Your task to perform on an android device: Search for sushi restaurants on Maps Image 0: 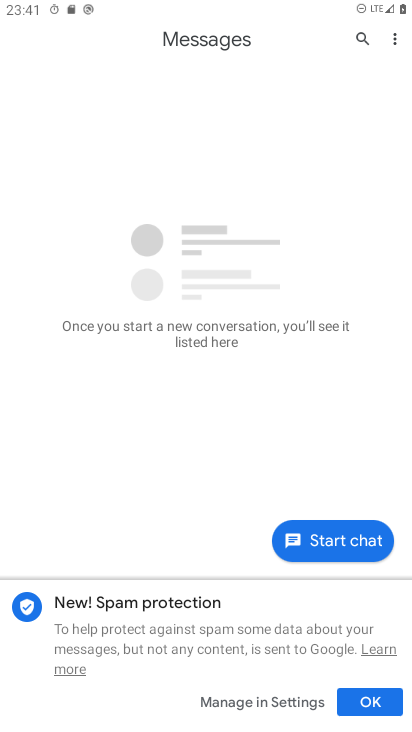
Step 0: press home button
Your task to perform on an android device: Search for sushi restaurants on Maps Image 1: 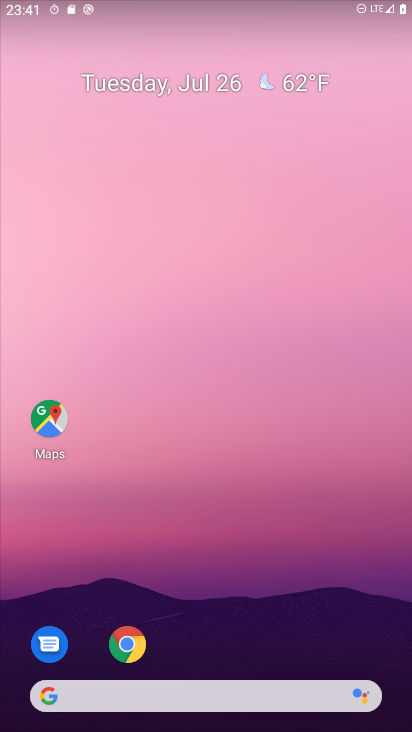
Step 1: click (51, 415)
Your task to perform on an android device: Search for sushi restaurants on Maps Image 2: 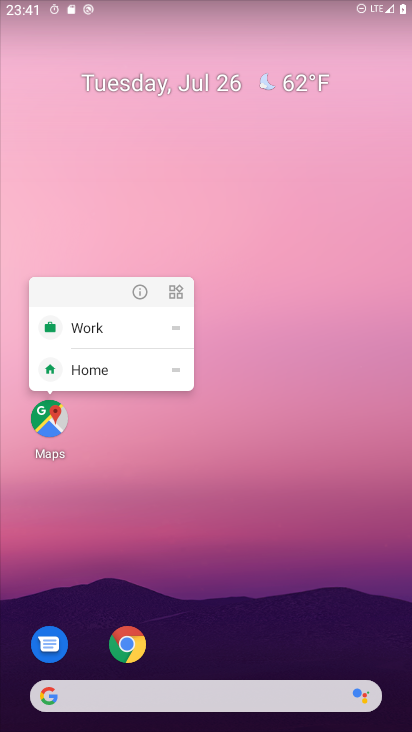
Step 2: click (51, 415)
Your task to perform on an android device: Search for sushi restaurants on Maps Image 3: 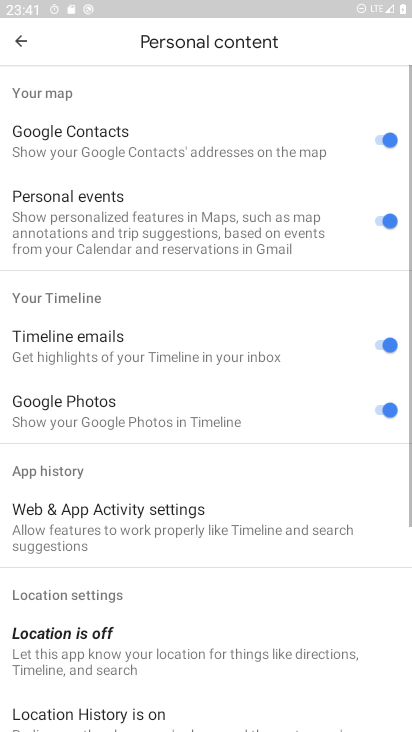
Step 3: click (23, 47)
Your task to perform on an android device: Search for sushi restaurants on Maps Image 4: 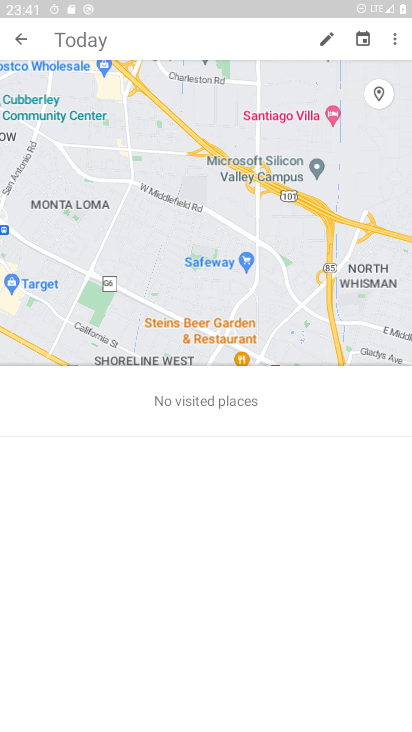
Step 4: click (19, 25)
Your task to perform on an android device: Search for sushi restaurants on Maps Image 5: 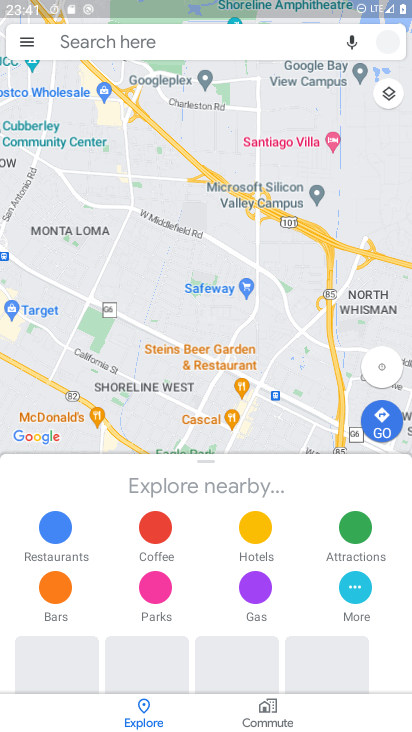
Step 5: click (83, 45)
Your task to perform on an android device: Search for sushi restaurants on Maps Image 6: 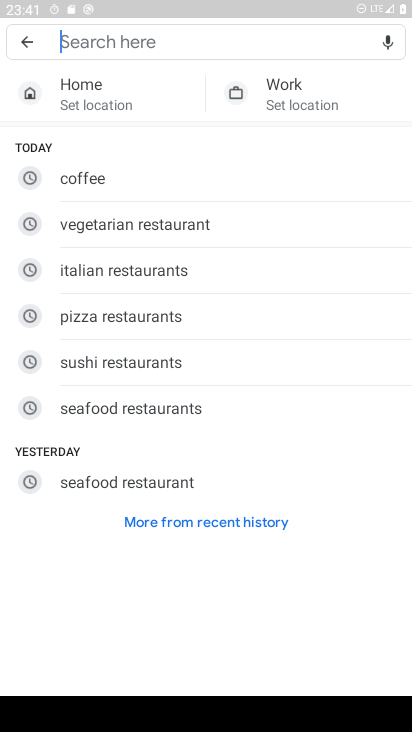
Step 6: type " sushi restaurants "
Your task to perform on an android device: Search for sushi restaurants on Maps Image 7: 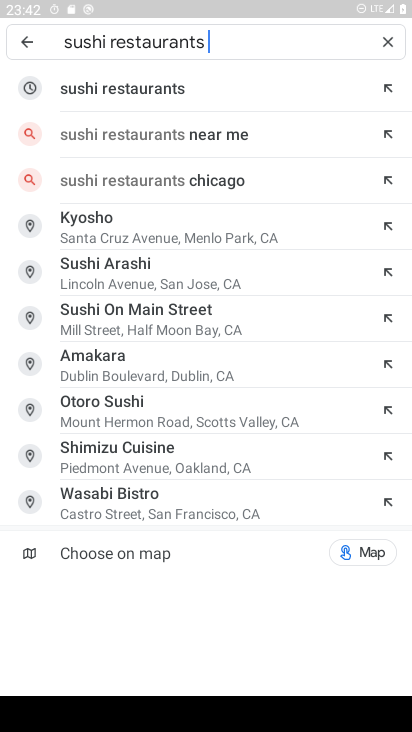
Step 7: click (136, 93)
Your task to perform on an android device: Search for sushi restaurants on Maps Image 8: 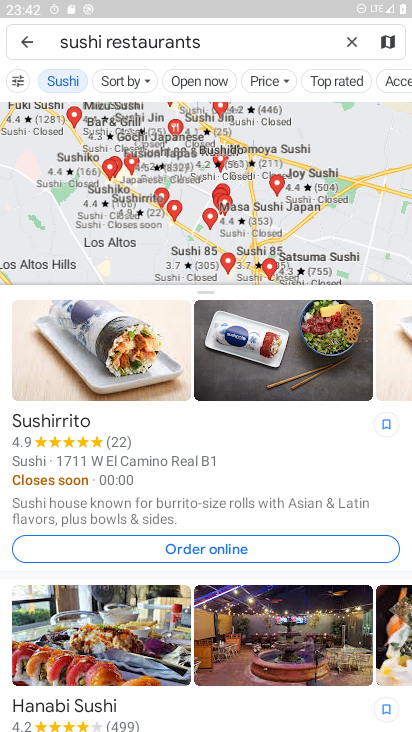
Step 8: task complete